Your task to perform on an android device: toggle notification dots Image 0: 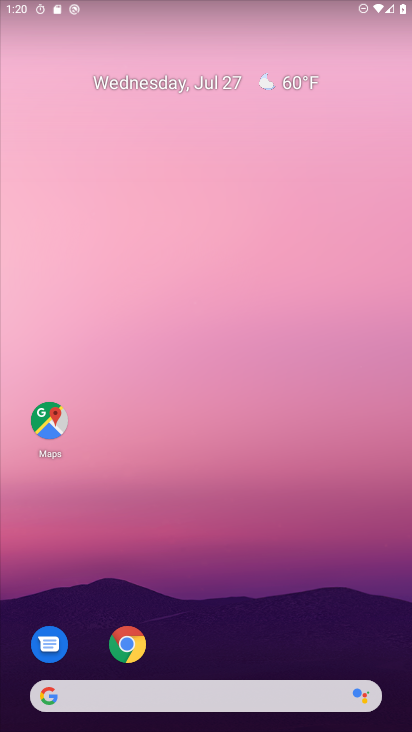
Step 0: drag from (223, 643) to (296, 32)
Your task to perform on an android device: toggle notification dots Image 1: 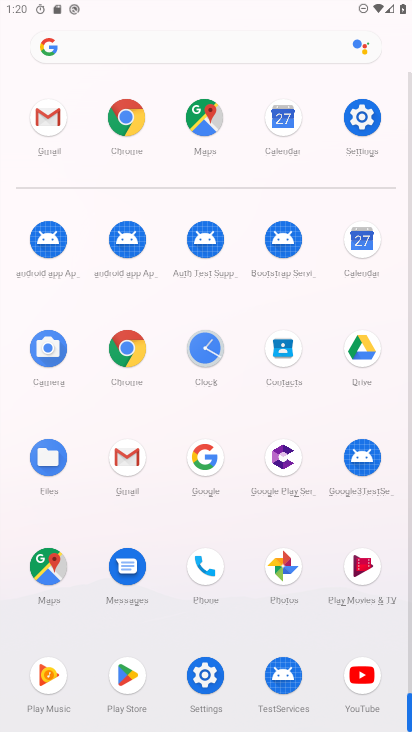
Step 1: click (371, 114)
Your task to perform on an android device: toggle notification dots Image 2: 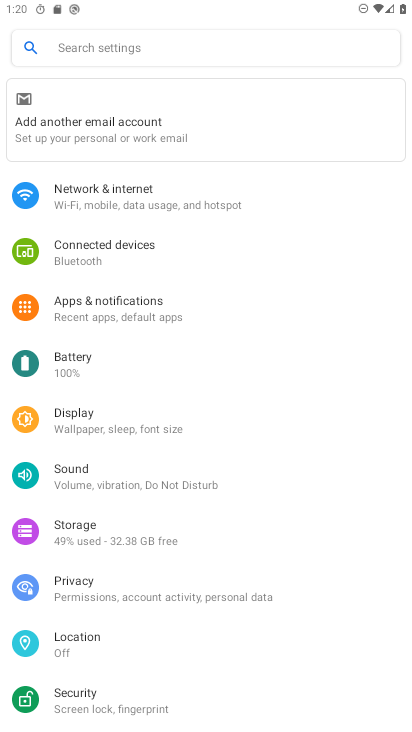
Step 2: click (116, 300)
Your task to perform on an android device: toggle notification dots Image 3: 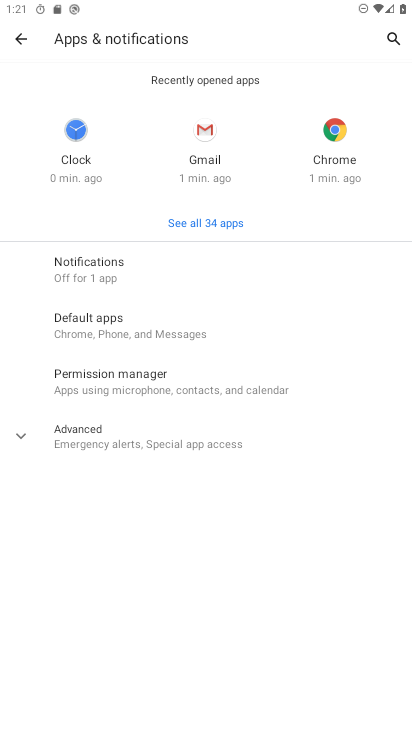
Step 3: click (103, 271)
Your task to perform on an android device: toggle notification dots Image 4: 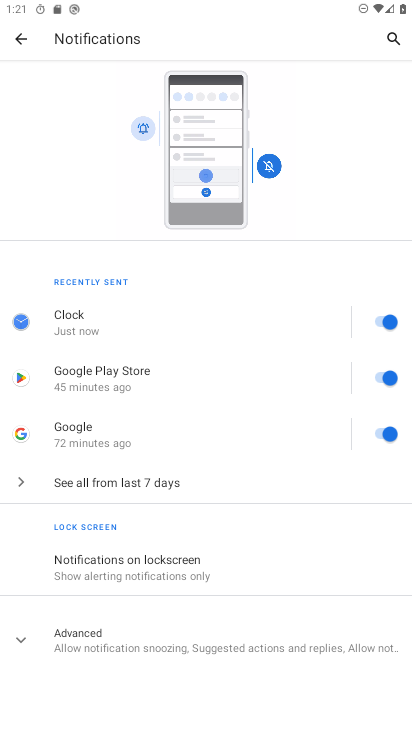
Step 4: click (72, 647)
Your task to perform on an android device: toggle notification dots Image 5: 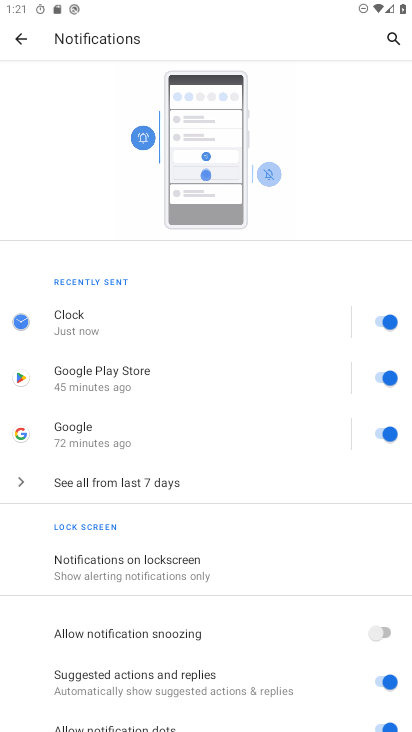
Step 5: drag from (164, 640) to (266, 445)
Your task to perform on an android device: toggle notification dots Image 6: 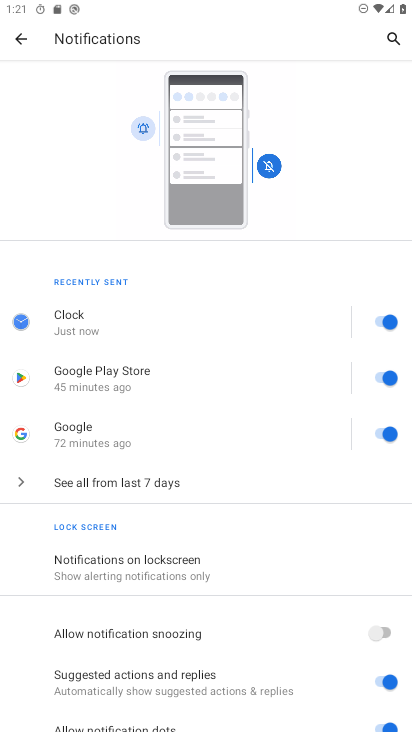
Step 6: drag from (282, 640) to (281, 355)
Your task to perform on an android device: toggle notification dots Image 7: 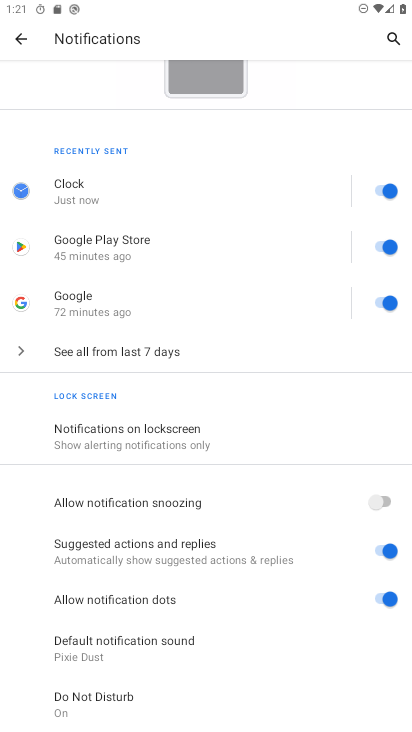
Step 7: click (383, 595)
Your task to perform on an android device: toggle notification dots Image 8: 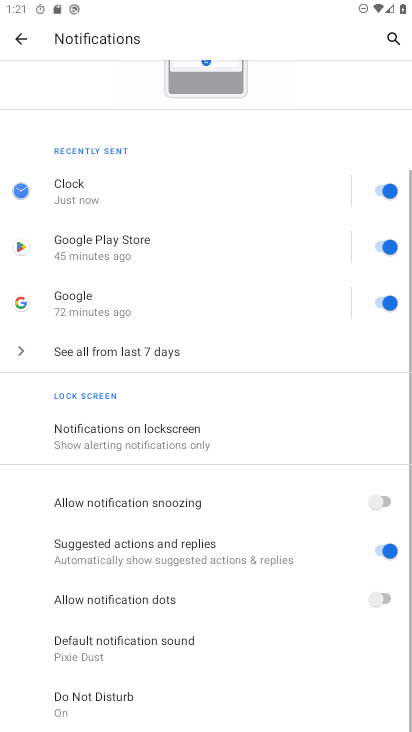
Step 8: task complete